Your task to perform on an android device: Show me the alarms in the clock app Image 0: 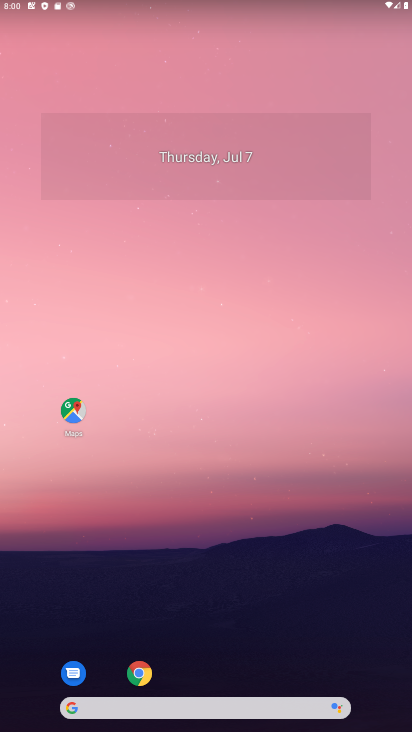
Step 0: press home button
Your task to perform on an android device: Show me the alarms in the clock app Image 1: 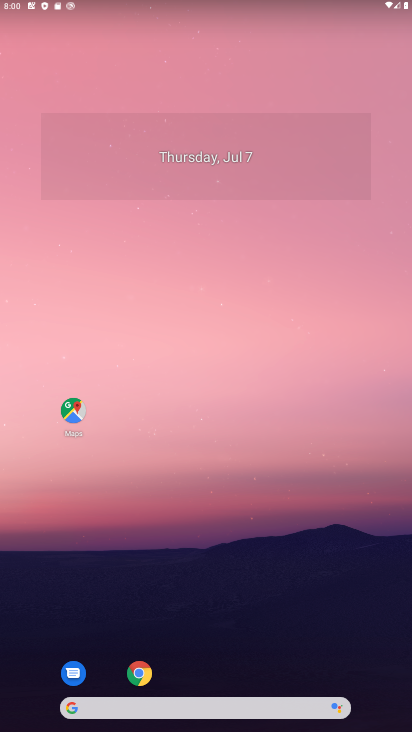
Step 1: drag from (314, 595) to (243, 7)
Your task to perform on an android device: Show me the alarms in the clock app Image 2: 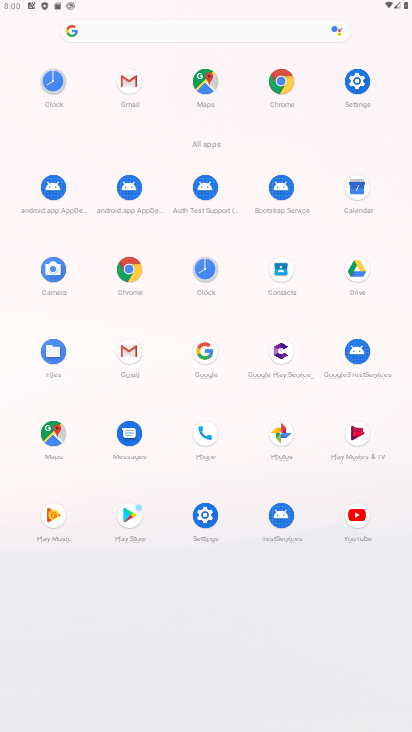
Step 2: click (202, 260)
Your task to perform on an android device: Show me the alarms in the clock app Image 3: 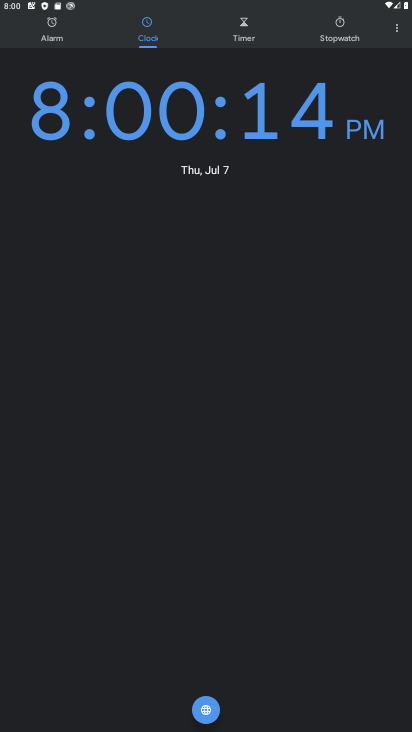
Step 3: click (57, 32)
Your task to perform on an android device: Show me the alarms in the clock app Image 4: 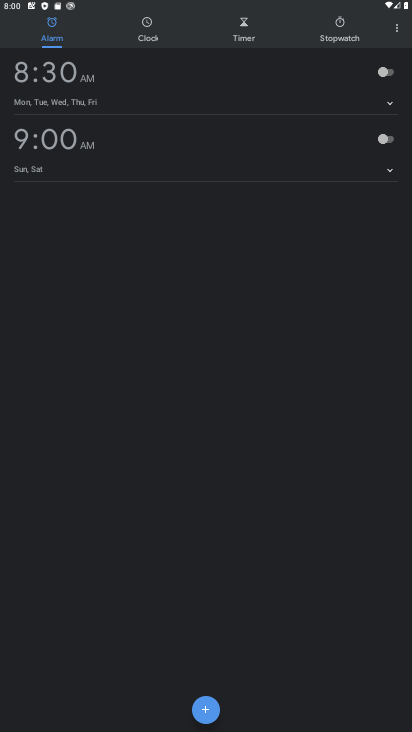
Step 4: task complete